Your task to perform on an android device: Show me recent news Image 0: 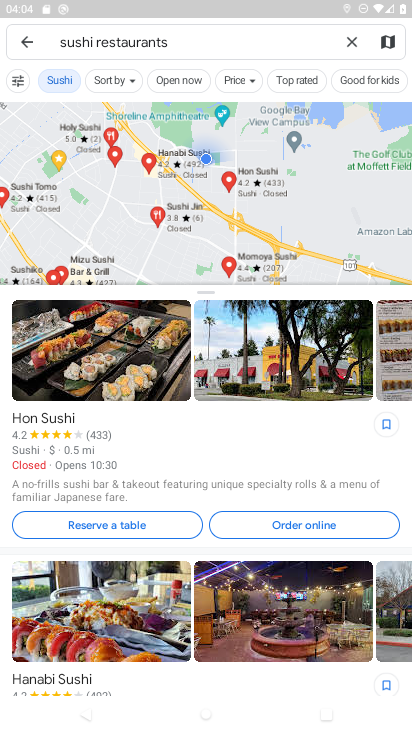
Step 0: press home button
Your task to perform on an android device: Show me recent news Image 1: 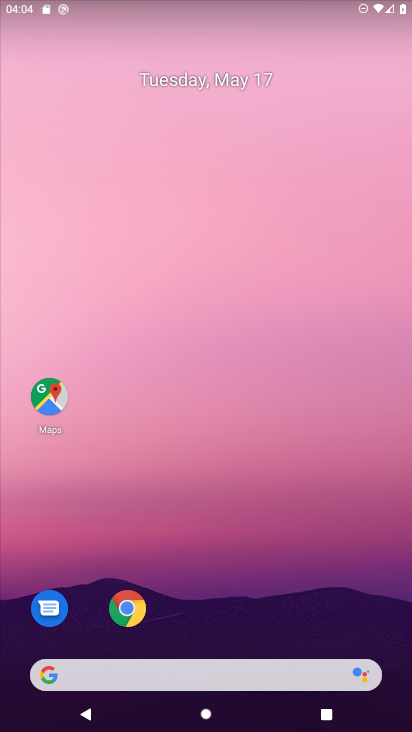
Step 1: drag from (191, 657) to (189, 529)
Your task to perform on an android device: Show me recent news Image 2: 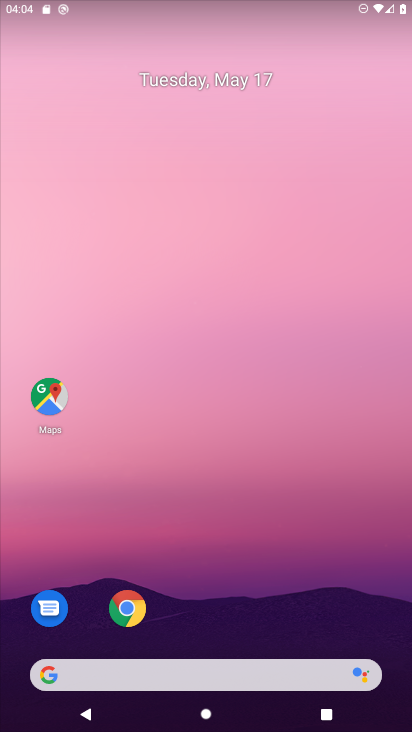
Step 2: drag from (219, 655) to (232, 427)
Your task to perform on an android device: Show me recent news Image 3: 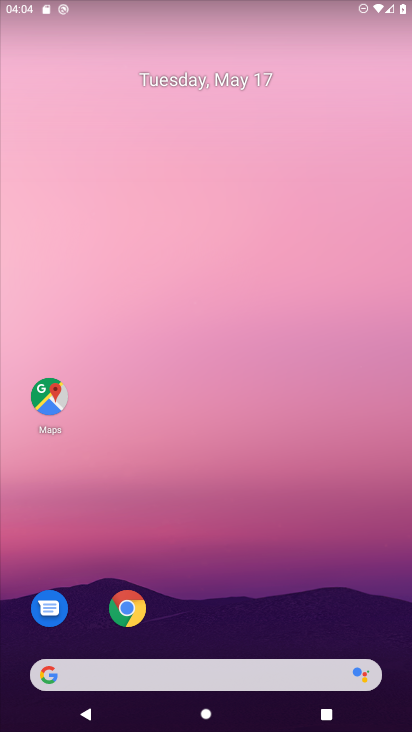
Step 3: drag from (183, 654) to (215, 182)
Your task to perform on an android device: Show me recent news Image 4: 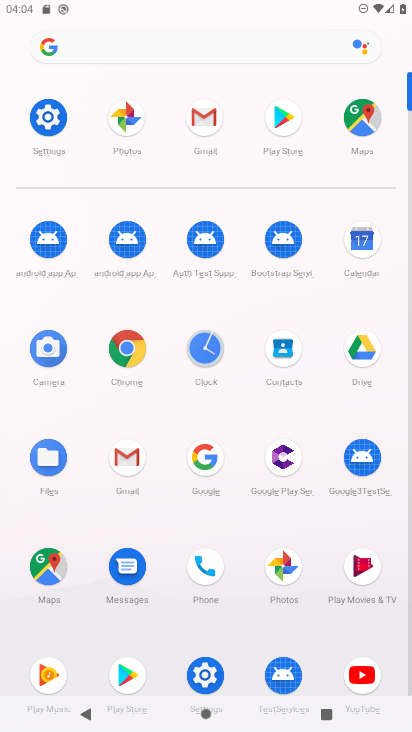
Step 4: click (207, 460)
Your task to perform on an android device: Show me recent news Image 5: 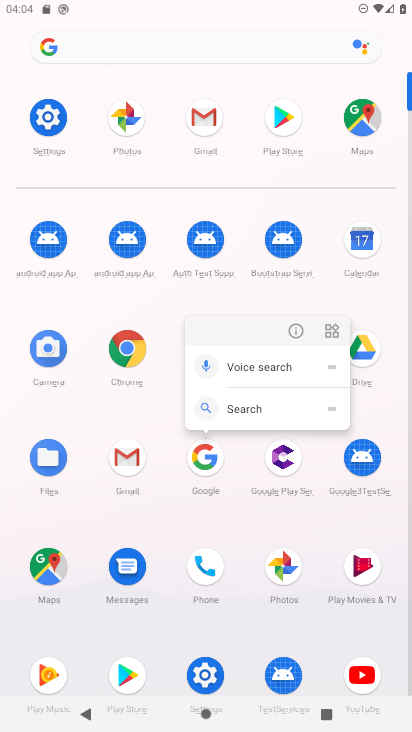
Step 5: click (199, 464)
Your task to perform on an android device: Show me recent news Image 6: 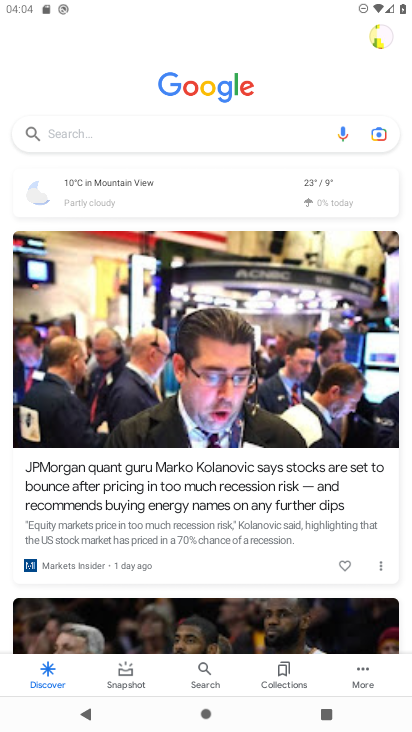
Step 6: click (197, 130)
Your task to perform on an android device: Show me recent news Image 7: 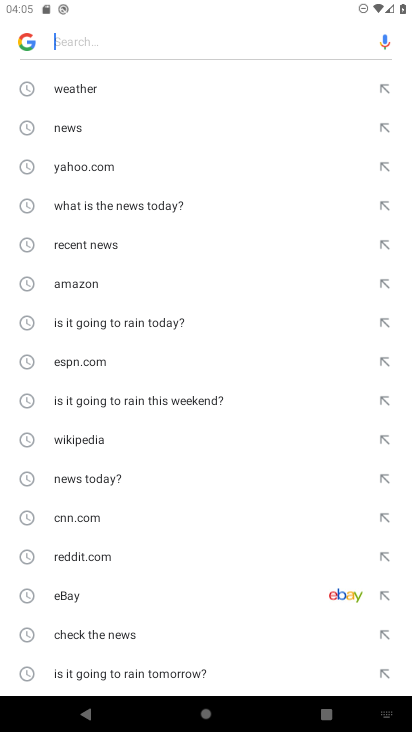
Step 7: click (69, 249)
Your task to perform on an android device: Show me recent news Image 8: 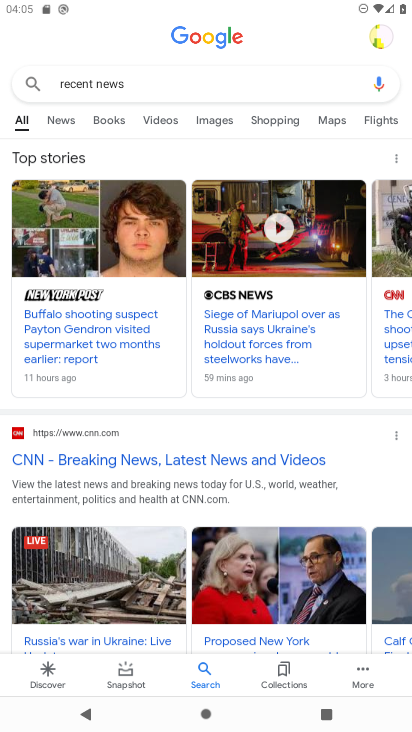
Step 8: task complete